Your task to perform on an android device: Open Wikipedia Image 0: 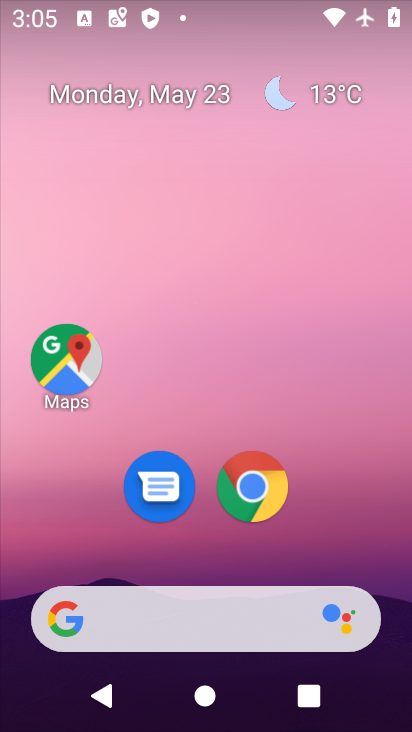
Step 0: click (250, 483)
Your task to perform on an android device: Open Wikipedia Image 1: 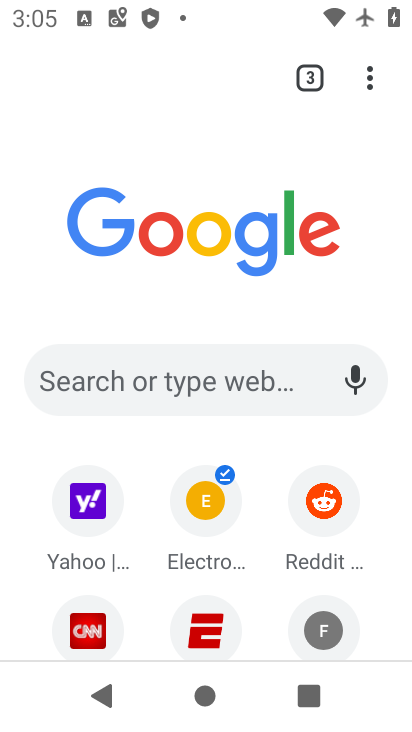
Step 1: click (204, 372)
Your task to perform on an android device: Open Wikipedia Image 2: 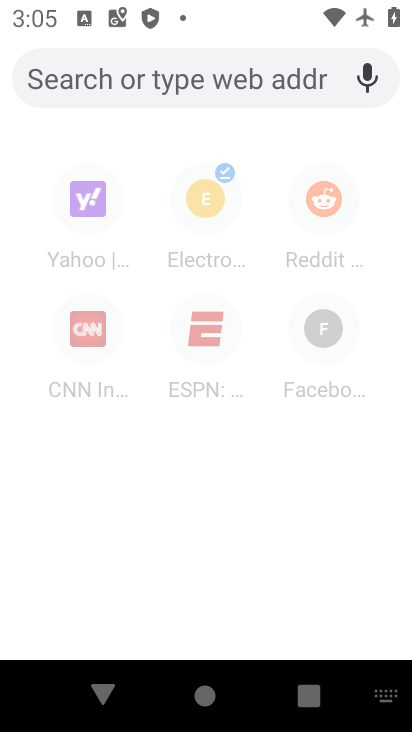
Step 2: type "wikipedia"
Your task to perform on an android device: Open Wikipedia Image 3: 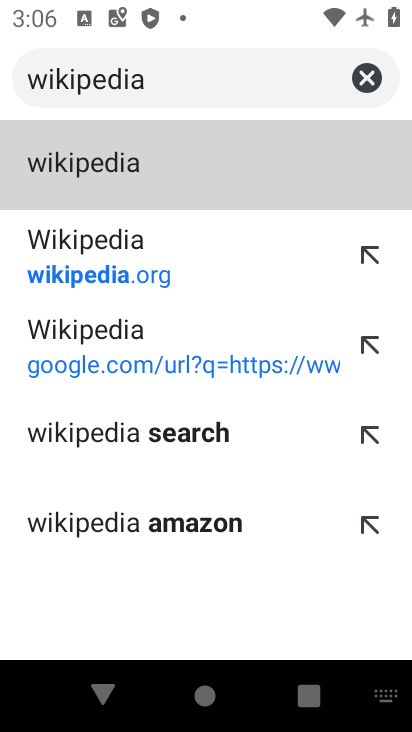
Step 3: click (78, 155)
Your task to perform on an android device: Open Wikipedia Image 4: 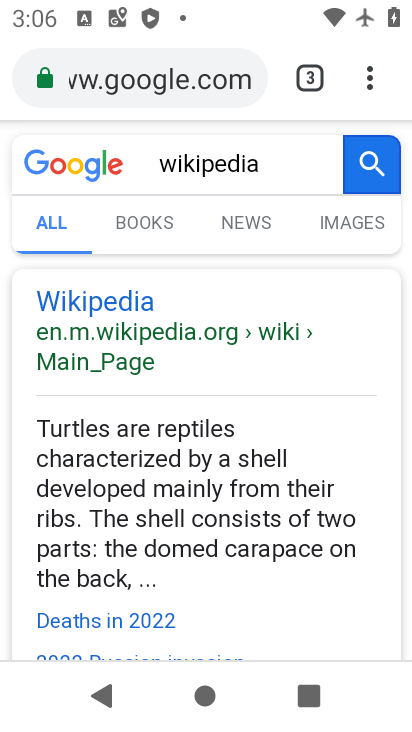
Step 4: click (73, 309)
Your task to perform on an android device: Open Wikipedia Image 5: 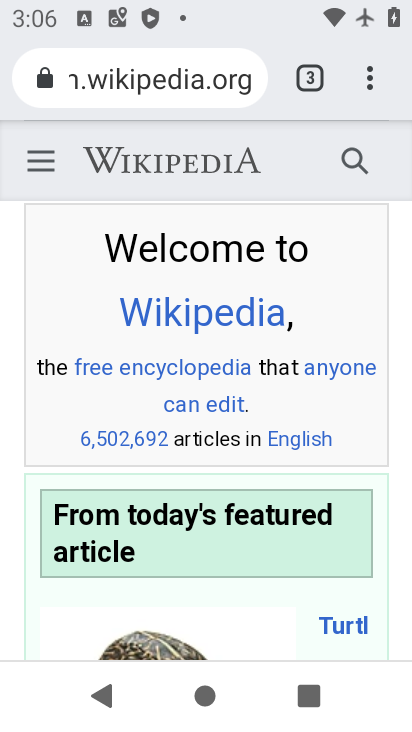
Step 5: task complete